Your task to perform on an android device: Open internet settings Image 0: 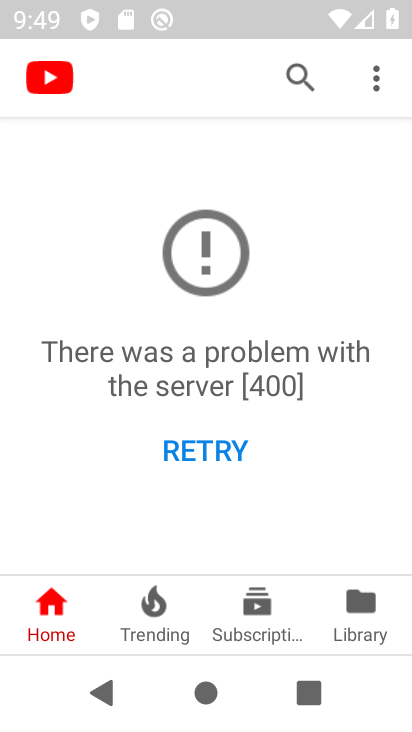
Step 0: press home button
Your task to perform on an android device: Open internet settings Image 1: 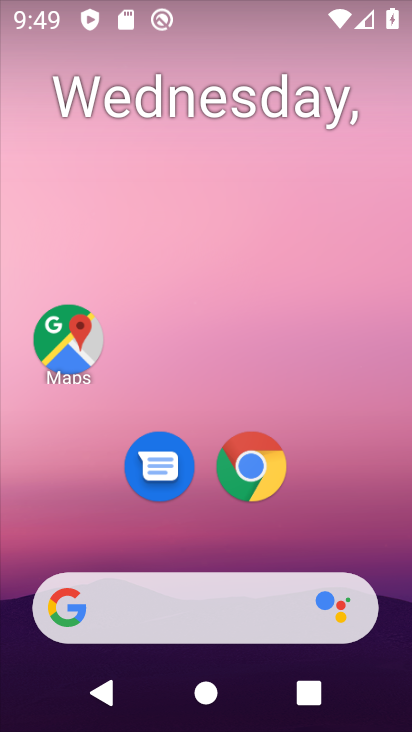
Step 1: drag from (277, 536) to (170, 66)
Your task to perform on an android device: Open internet settings Image 2: 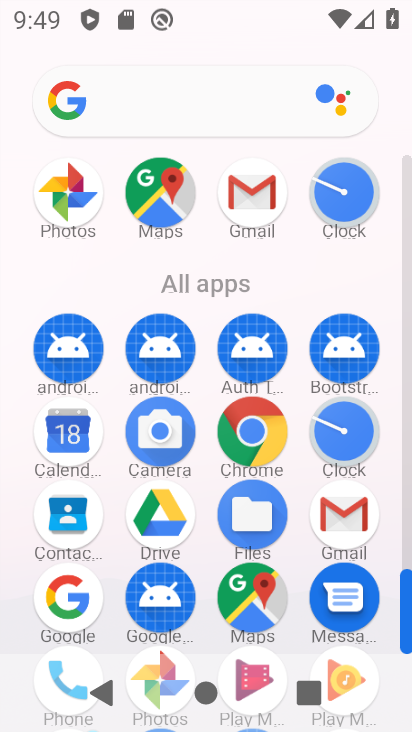
Step 2: drag from (269, 616) to (295, 316)
Your task to perform on an android device: Open internet settings Image 3: 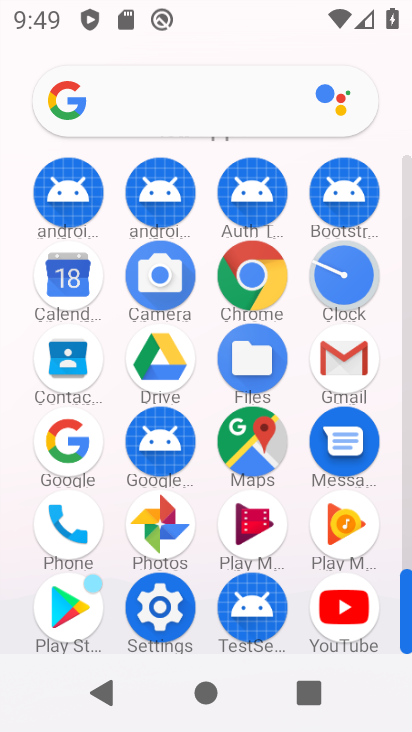
Step 3: click (148, 613)
Your task to perform on an android device: Open internet settings Image 4: 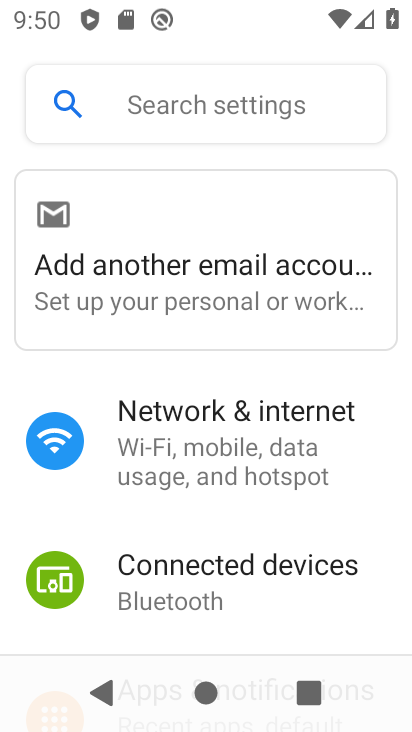
Step 4: click (189, 475)
Your task to perform on an android device: Open internet settings Image 5: 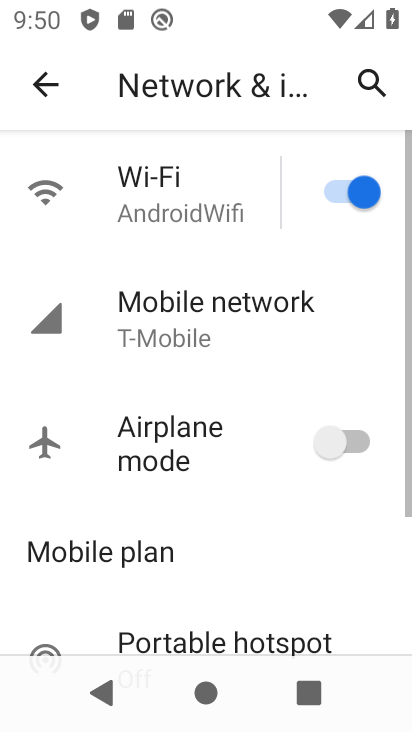
Step 5: click (208, 342)
Your task to perform on an android device: Open internet settings Image 6: 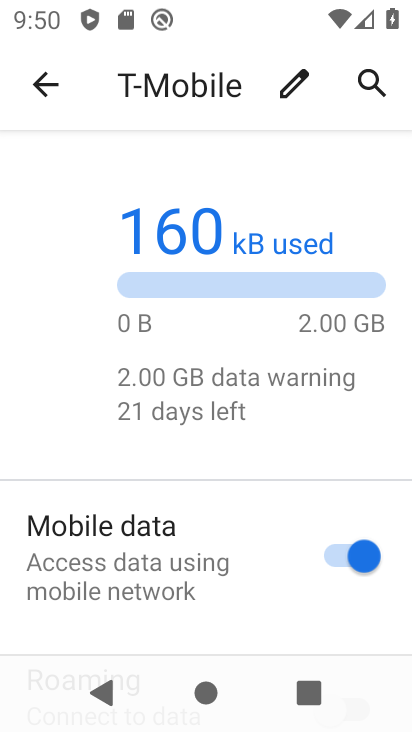
Step 6: task complete